Your task to perform on an android device: Show me popular games on the Play Store Image 0: 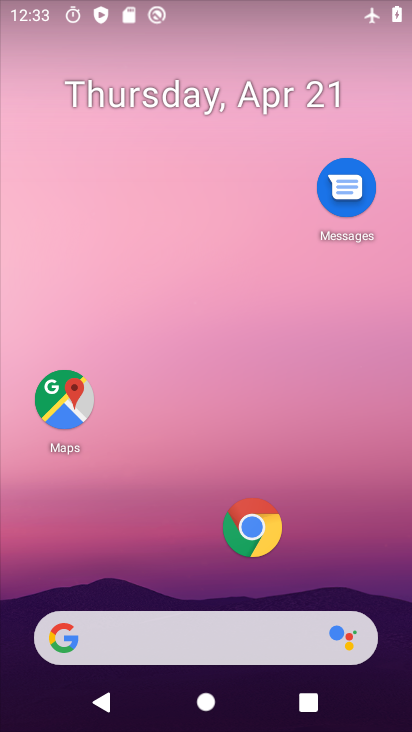
Step 0: drag from (30, 539) to (60, 63)
Your task to perform on an android device: Show me popular games on the Play Store Image 1: 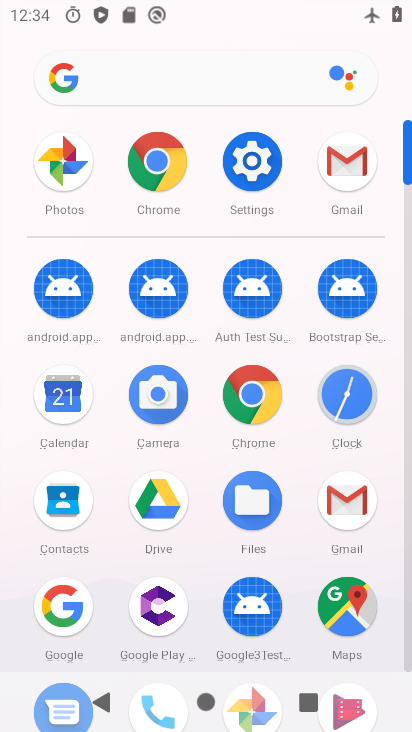
Step 1: drag from (206, 639) to (221, 290)
Your task to perform on an android device: Show me popular games on the Play Store Image 2: 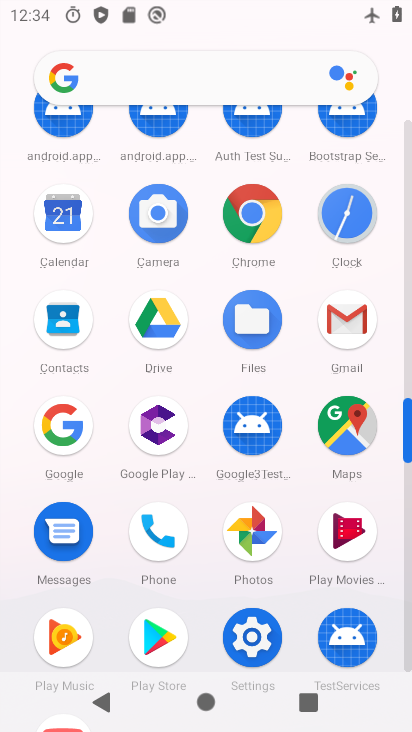
Step 2: click (132, 645)
Your task to perform on an android device: Show me popular games on the Play Store Image 3: 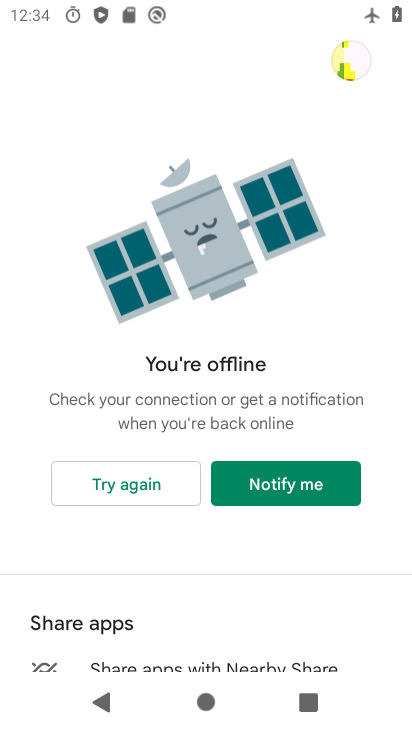
Step 3: task complete